Your task to perform on an android device: make emails show in primary in the gmail app Image 0: 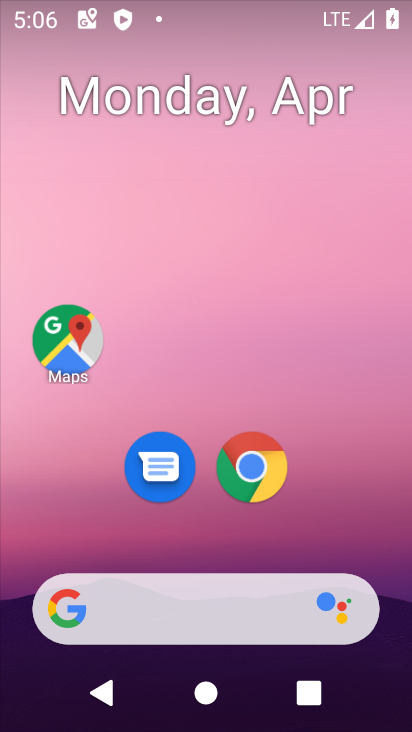
Step 0: drag from (322, 513) to (267, 10)
Your task to perform on an android device: make emails show in primary in the gmail app Image 1: 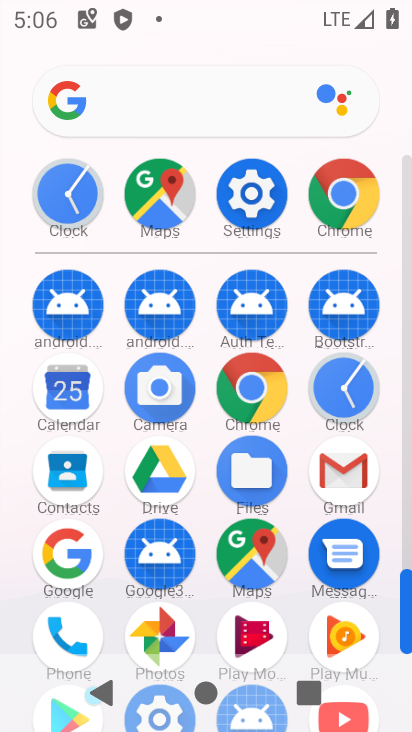
Step 1: click (364, 469)
Your task to perform on an android device: make emails show in primary in the gmail app Image 2: 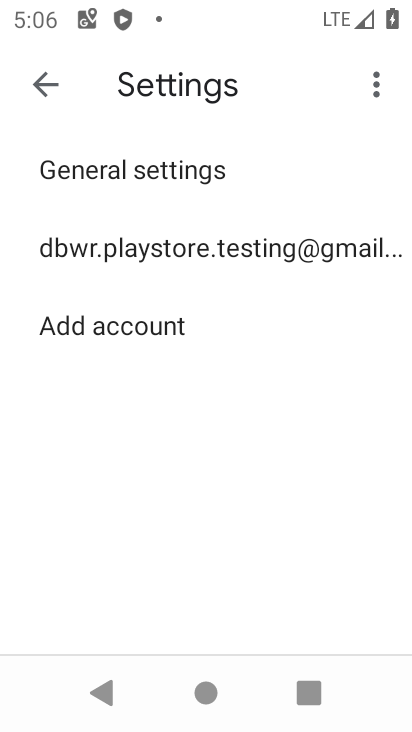
Step 2: click (73, 252)
Your task to perform on an android device: make emails show in primary in the gmail app Image 3: 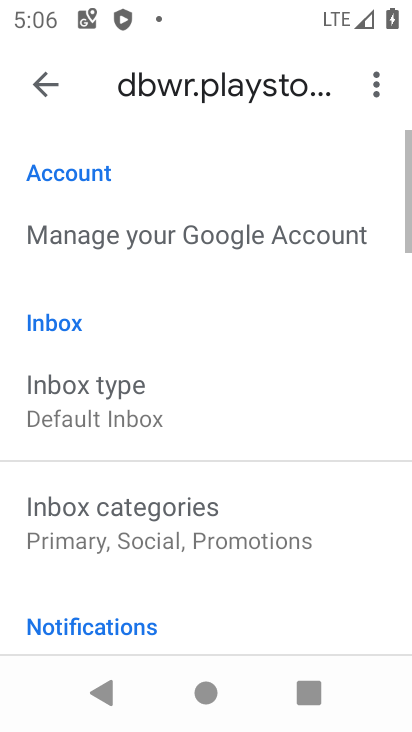
Step 3: drag from (241, 597) to (285, 303)
Your task to perform on an android device: make emails show in primary in the gmail app Image 4: 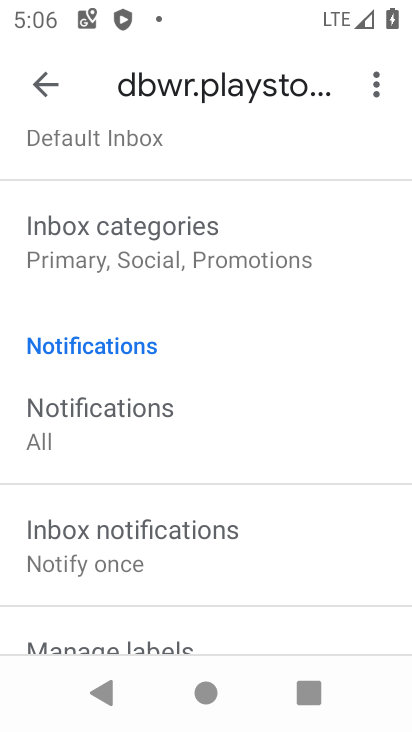
Step 4: click (267, 257)
Your task to perform on an android device: make emails show in primary in the gmail app Image 5: 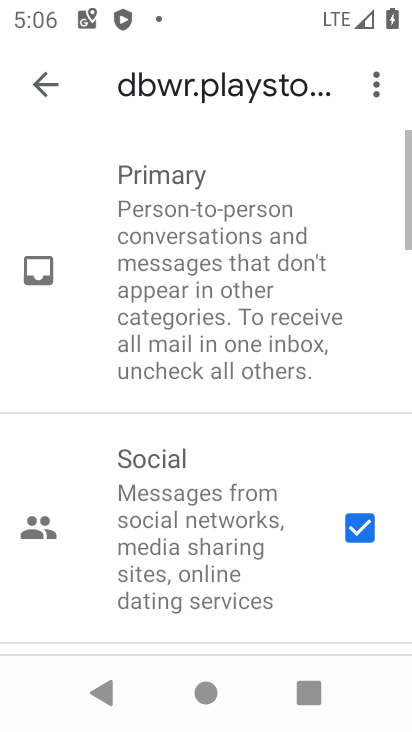
Step 5: drag from (342, 590) to (355, 175)
Your task to perform on an android device: make emails show in primary in the gmail app Image 6: 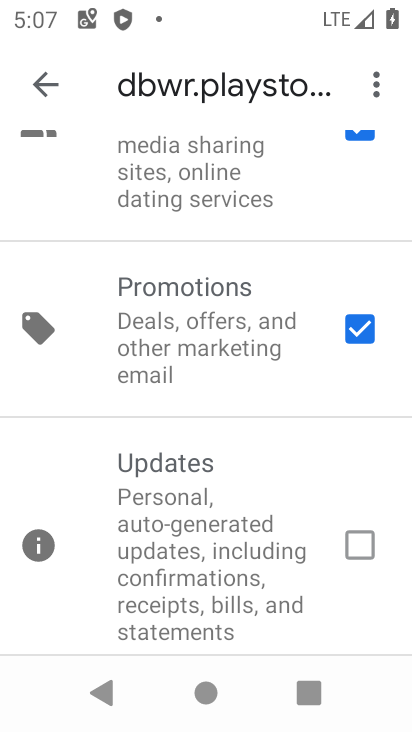
Step 6: drag from (251, 187) to (219, 621)
Your task to perform on an android device: make emails show in primary in the gmail app Image 7: 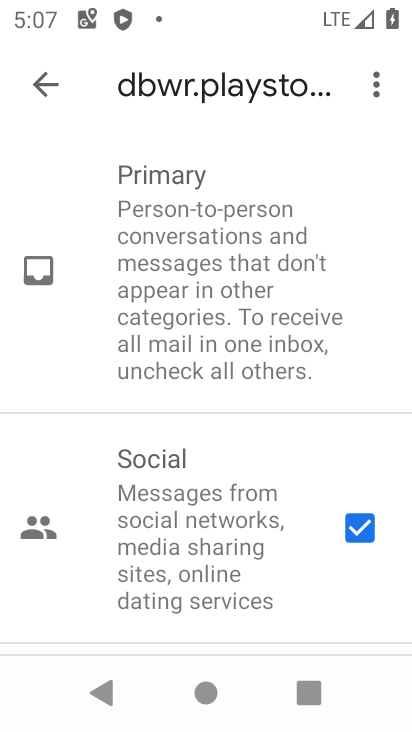
Step 7: click (237, 325)
Your task to perform on an android device: make emails show in primary in the gmail app Image 8: 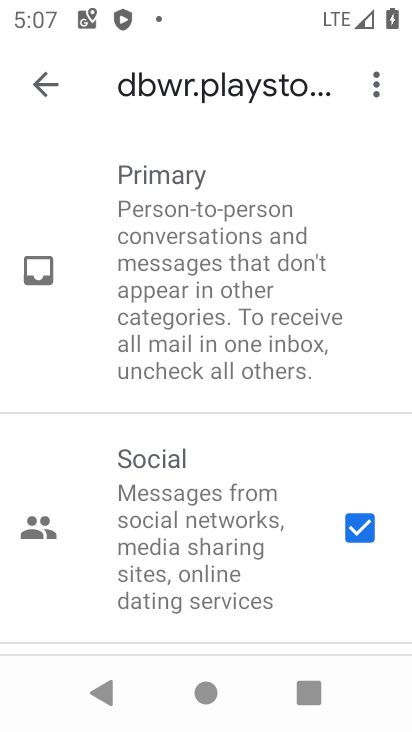
Step 8: click (362, 528)
Your task to perform on an android device: make emails show in primary in the gmail app Image 9: 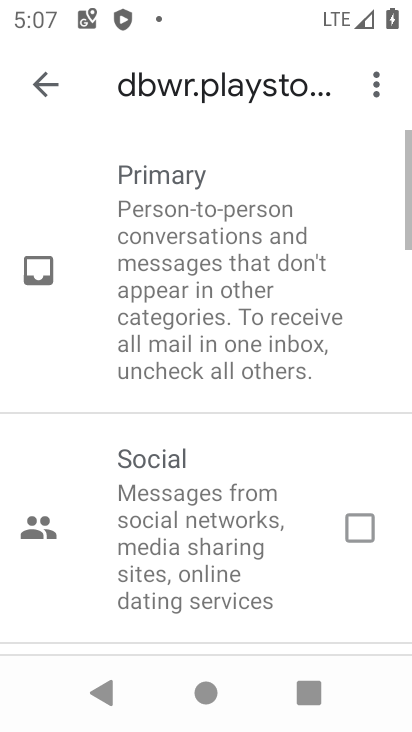
Step 9: drag from (375, 606) to (375, 180)
Your task to perform on an android device: make emails show in primary in the gmail app Image 10: 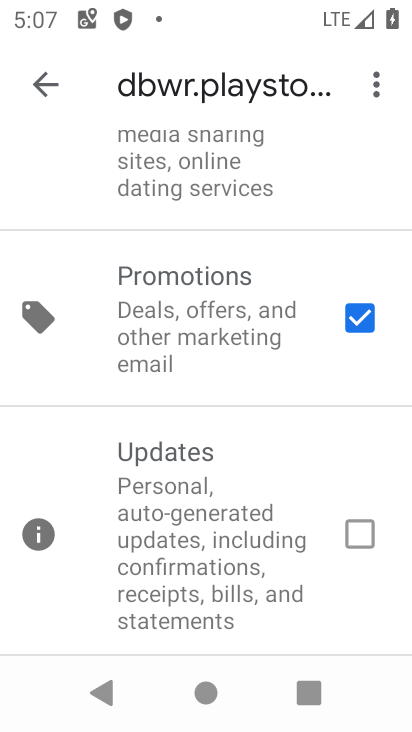
Step 10: click (359, 318)
Your task to perform on an android device: make emails show in primary in the gmail app Image 11: 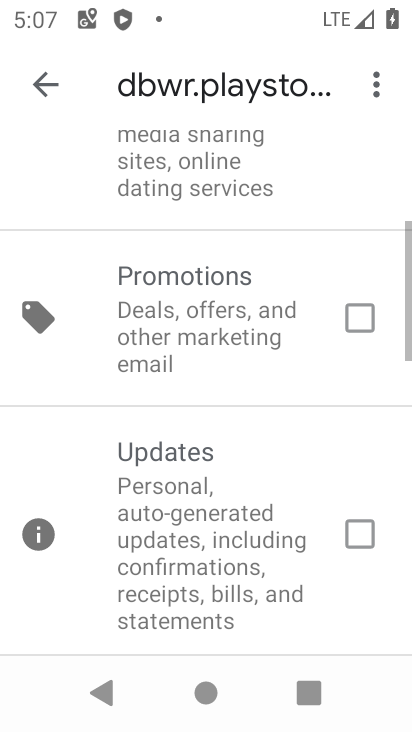
Step 11: task complete